Your task to perform on an android device: Open my contact list Image 0: 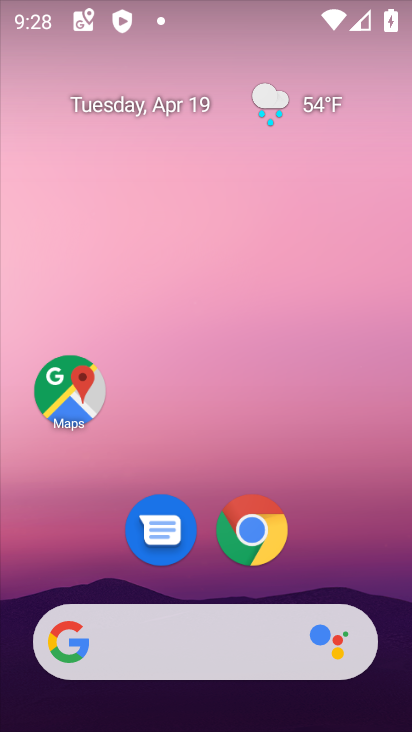
Step 0: drag from (213, 431) to (213, 127)
Your task to perform on an android device: Open my contact list Image 1: 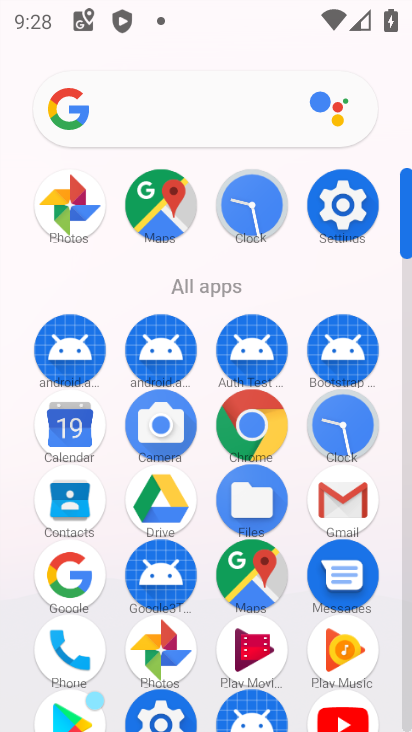
Step 1: click (68, 503)
Your task to perform on an android device: Open my contact list Image 2: 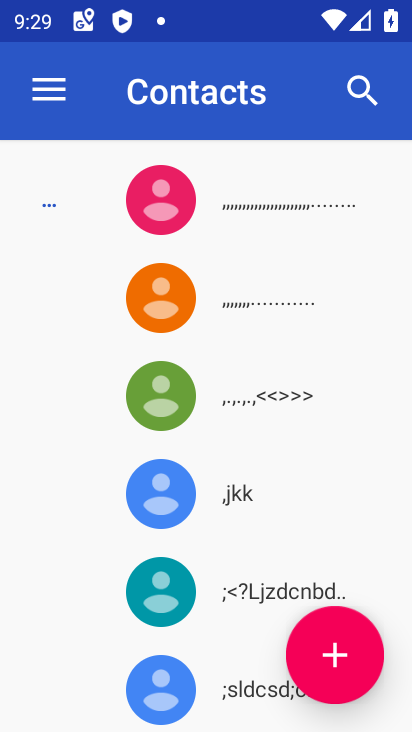
Step 2: task complete